Your task to perform on an android device: What's the weather going to be tomorrow? Image 0: 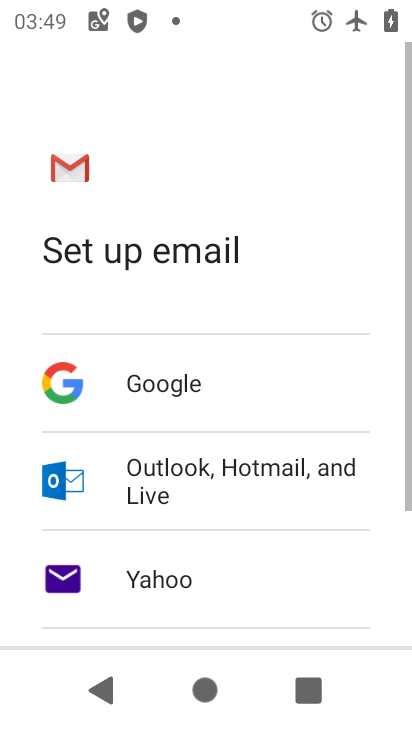
Step 0: press home button
Your task to perform on an android device: What's the weather going to be tomorrow? Image 1: 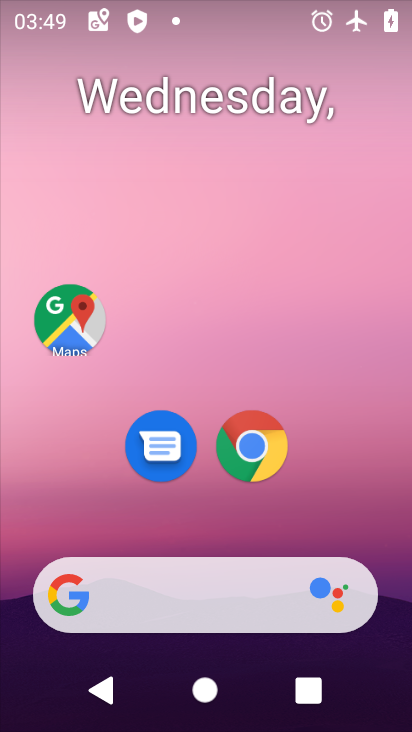
Step 1: drag from (232, 514) to (234, 175)
Your task to perform on an android device: What's the weather going to be tomorrow? Image 2: 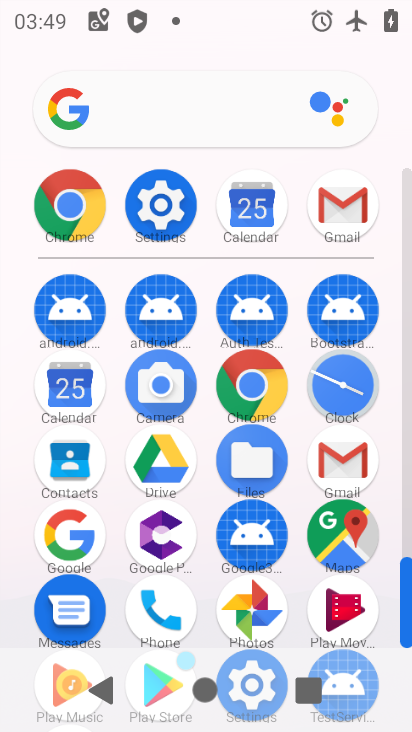
Step 2: click (81, 549)
Your task to perform on an android device: What's the weather going to be tomorrow? Image 3: 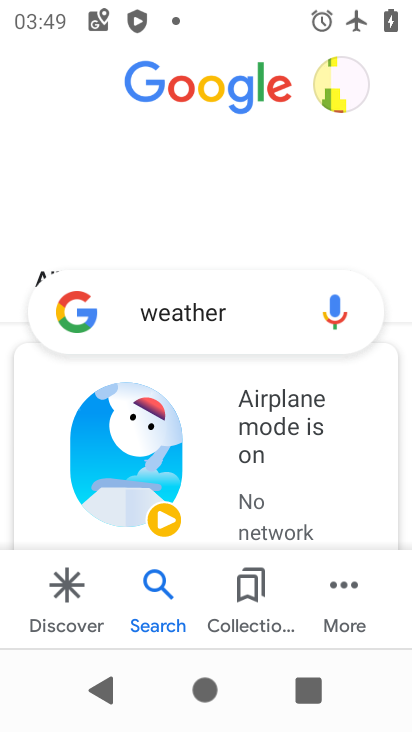
Step 3: task complete